Your task to perform on an android device: turn vacation reply on in the gmail app Image 0: 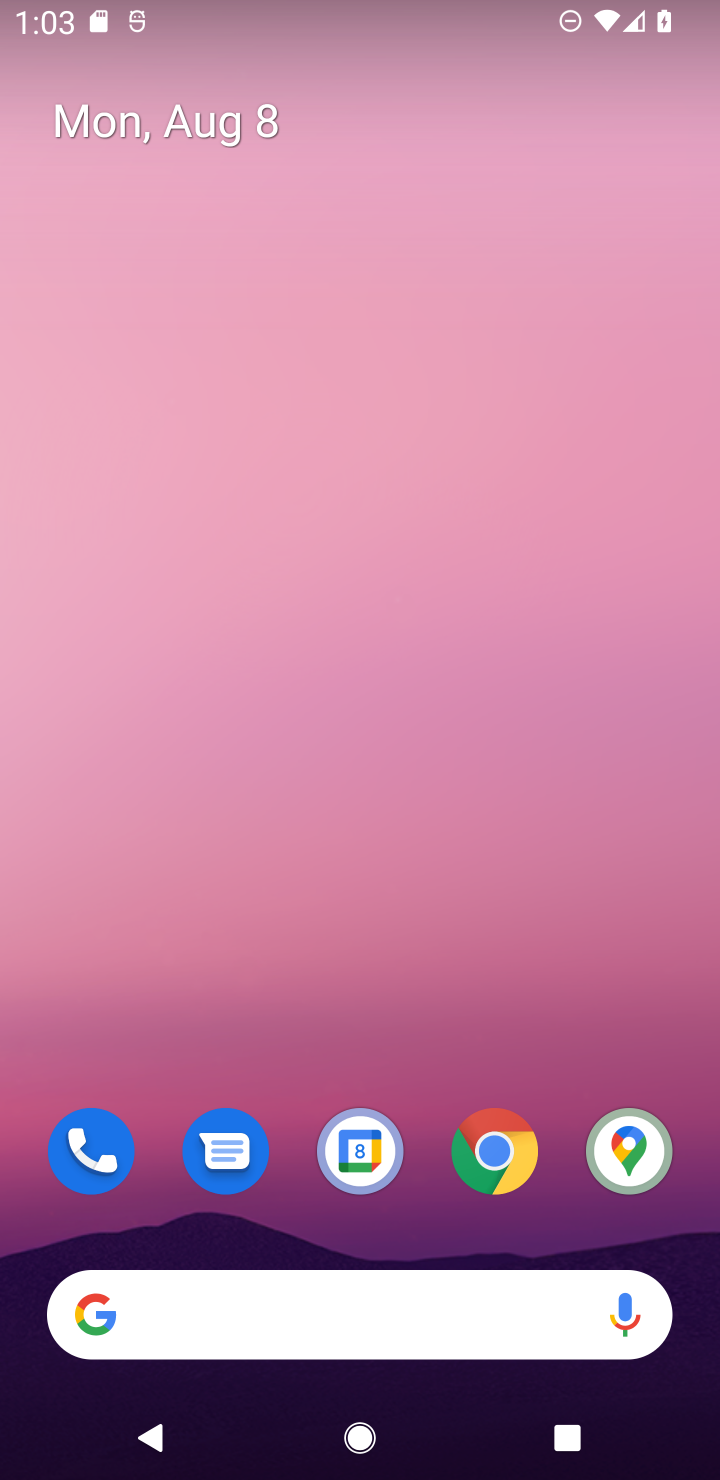
Step 0: drag from (394, 316) to (392, 164)
Your task to perform on an android device: turn vacation reply on in the gmail app Image 1: 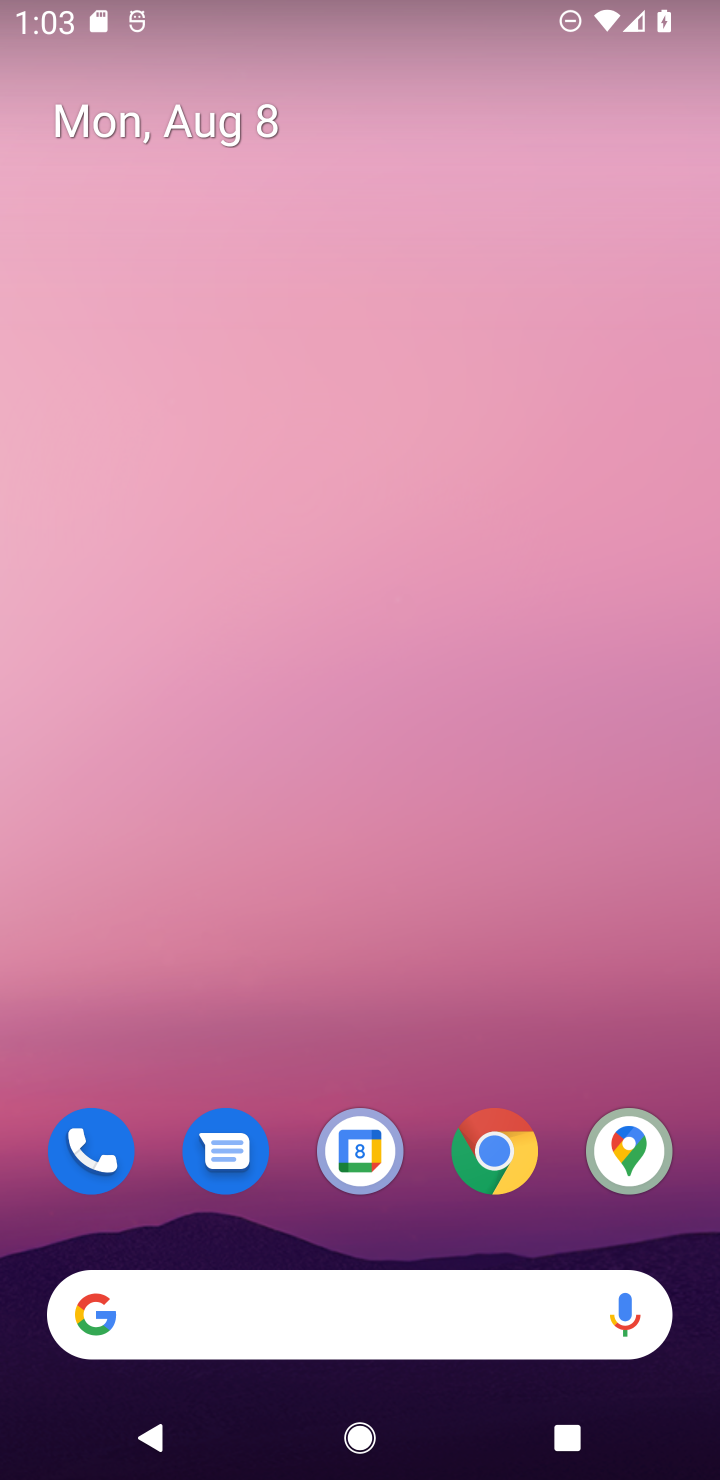
Step 1: drag from (214, 1235) to (189, 358)
Your task to perform on an android device: turn vacation reply on in the gmail app Image 2: 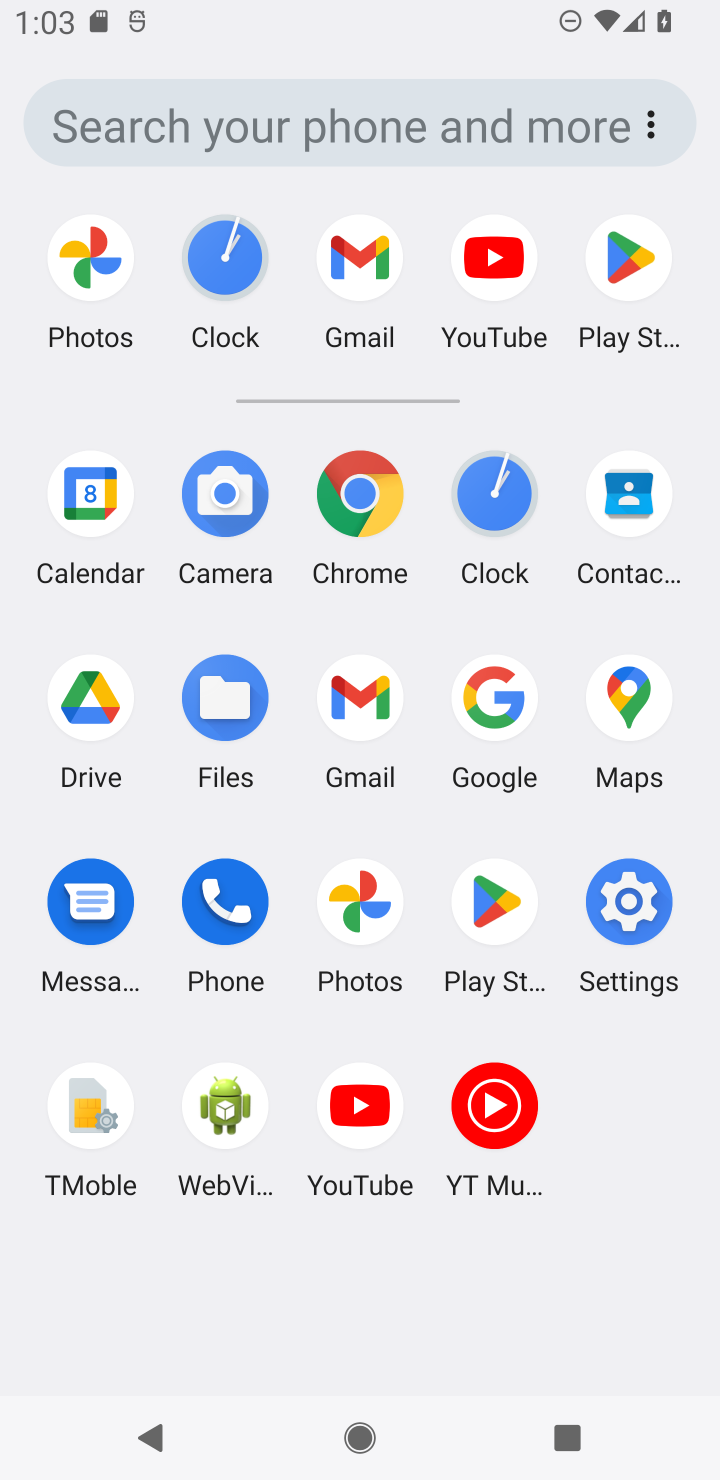
Step 2: click (355, 732)
Your task to perform on an android device: turn vacation reply on in the gmail app Image 3: 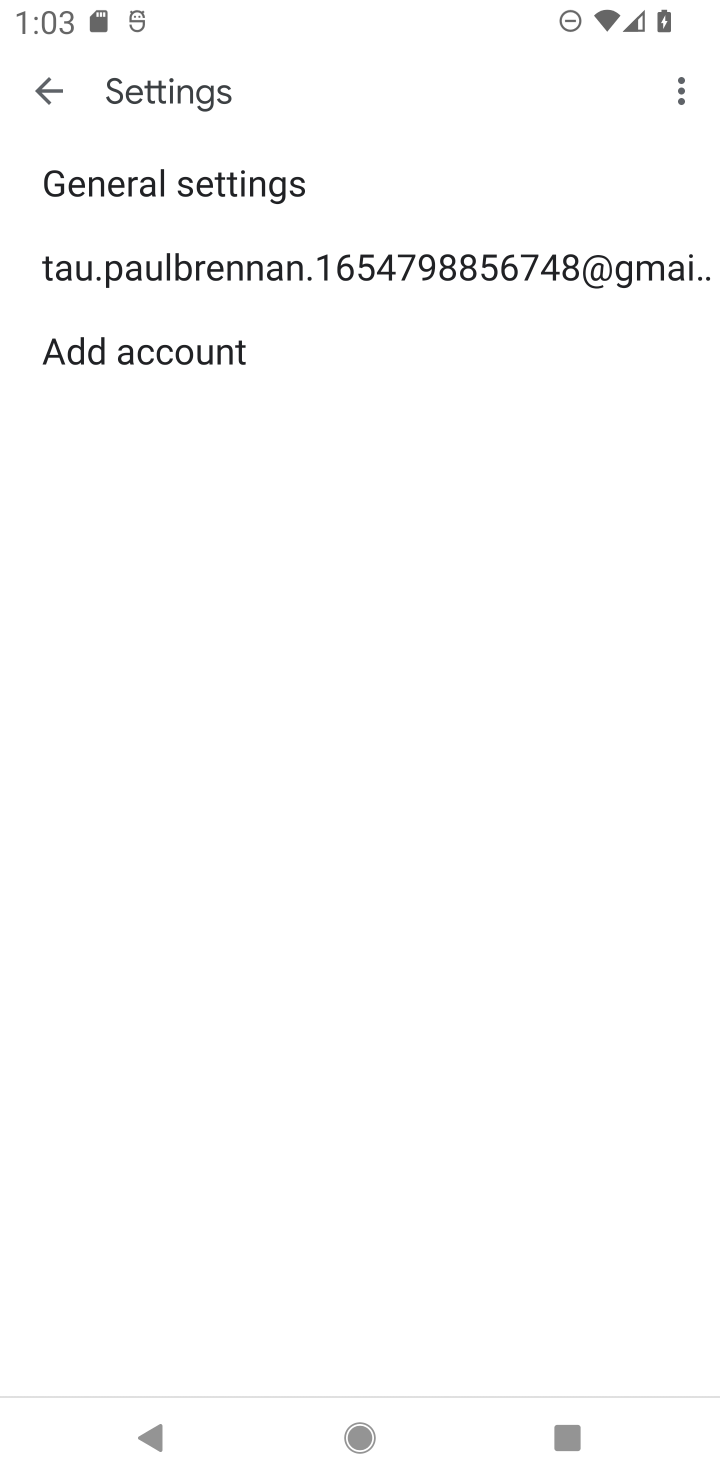
Step 3: click (169, 245)
Your task to perform on an android device: turn vacation reply on in the gmail app Image 4: 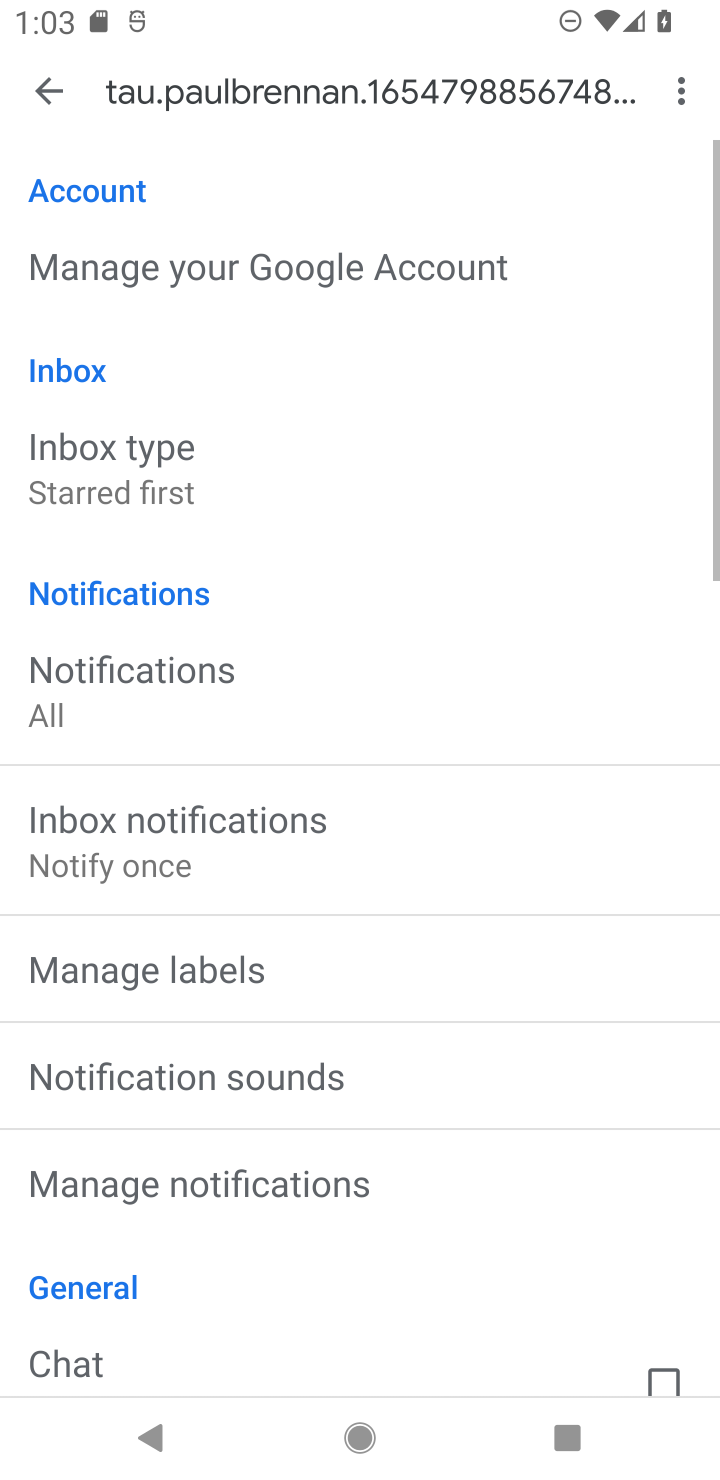
Step 4: drag from (163, 1302) to (173, 406)
Your task to perform on an android device: turn vacation reply on in the gmail app Image 5: 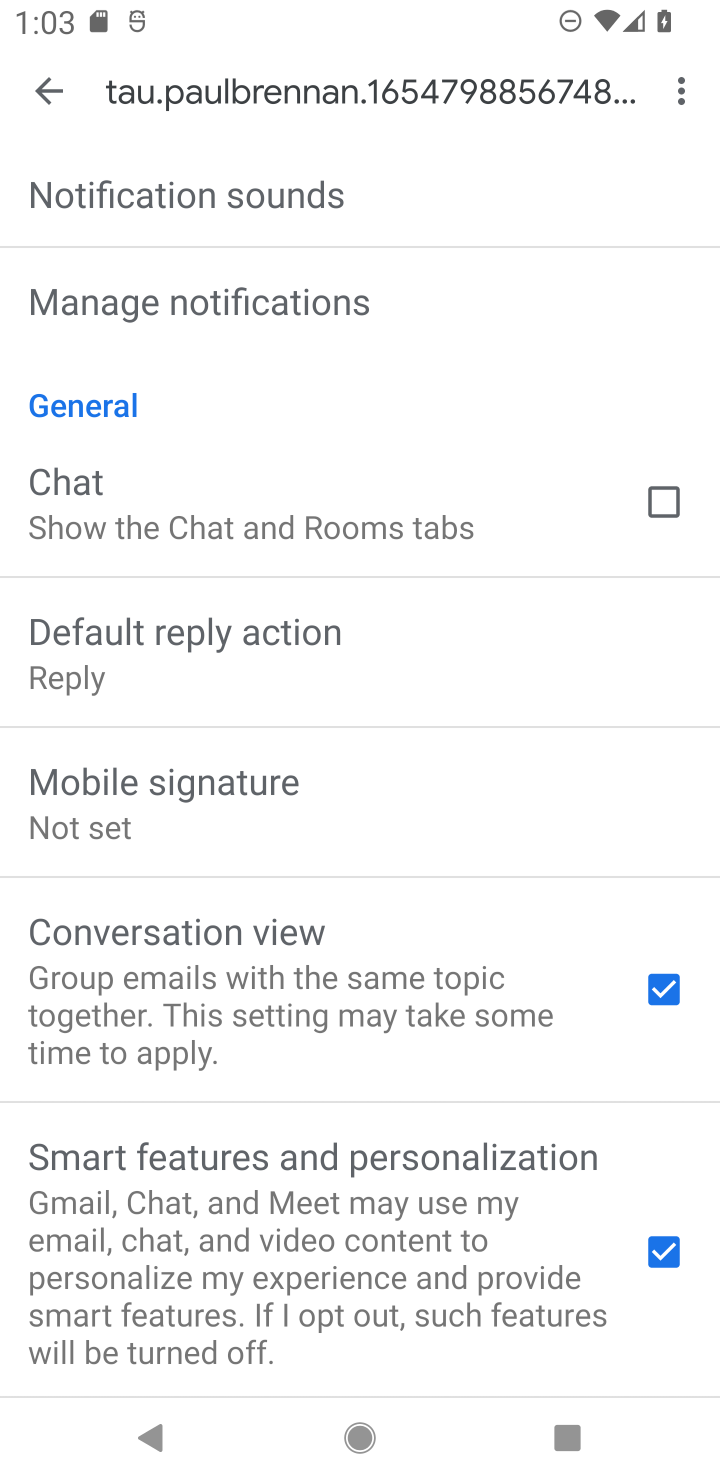
Step 5: drag from (81, 1293) to (142, 620)
Your task to perform on an android device: turn vacation reply on in the gmail app Image 6: 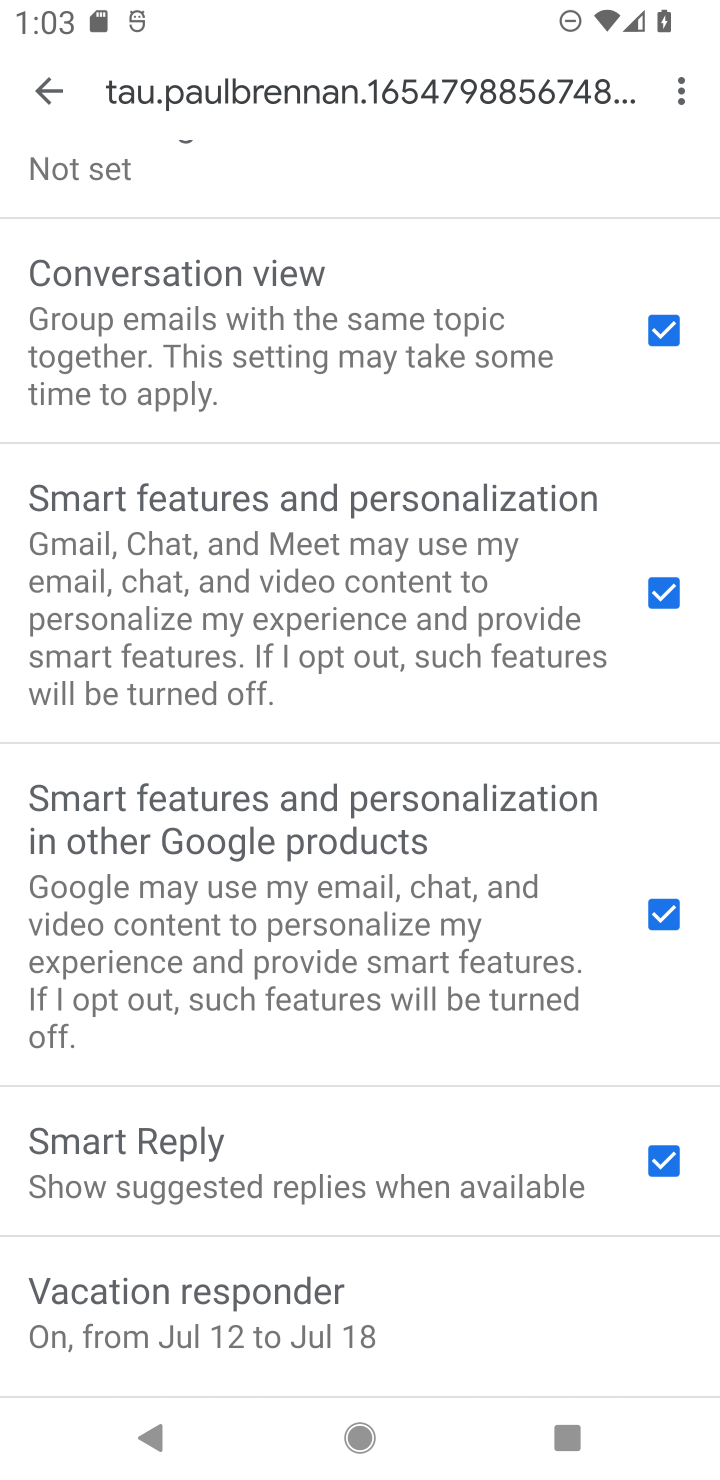
Step 6: drag from (278, 1200) to (278, 529)
Your task to perform on an android device: turn vacation reply on in the gmail app Image 7: 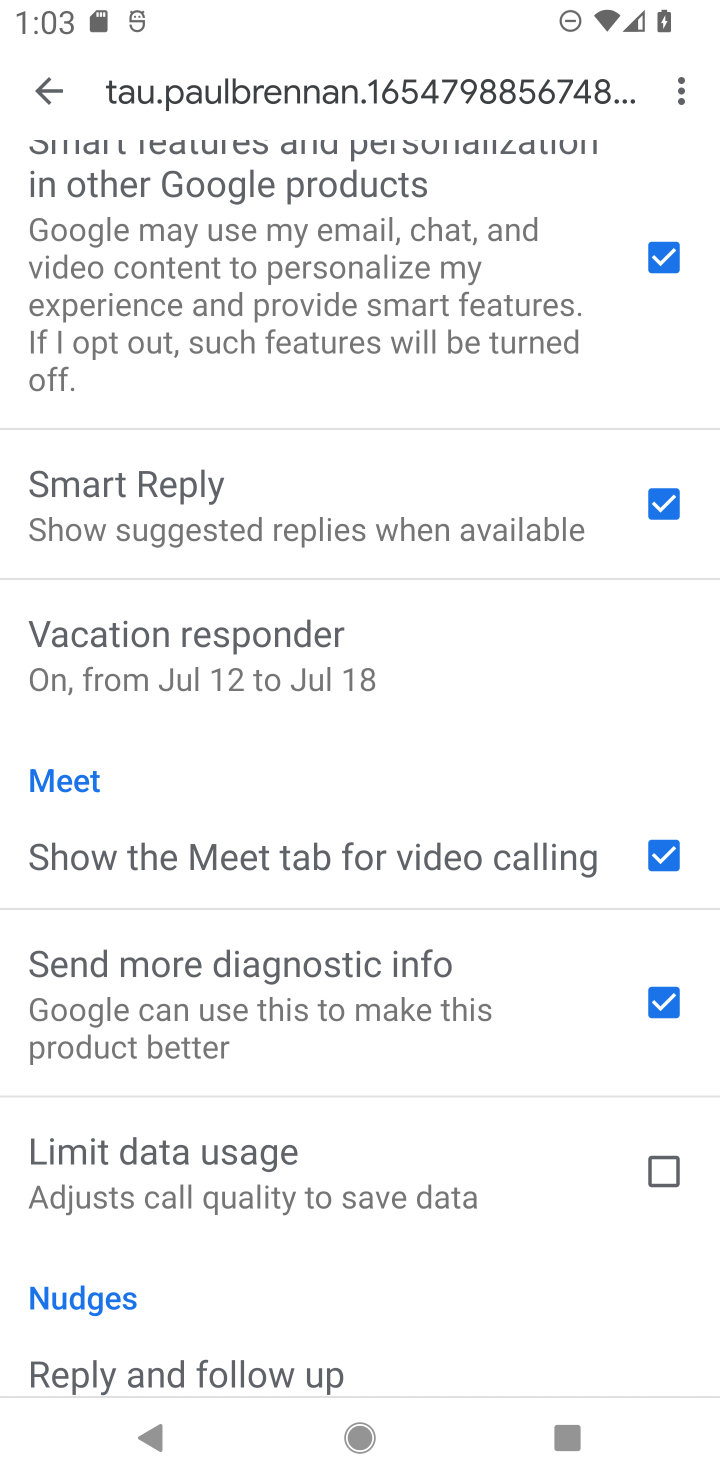
Step 7: click (179, 670)
Your task to perform on an android device: turn vacation reply on in the gmail app Image 8: 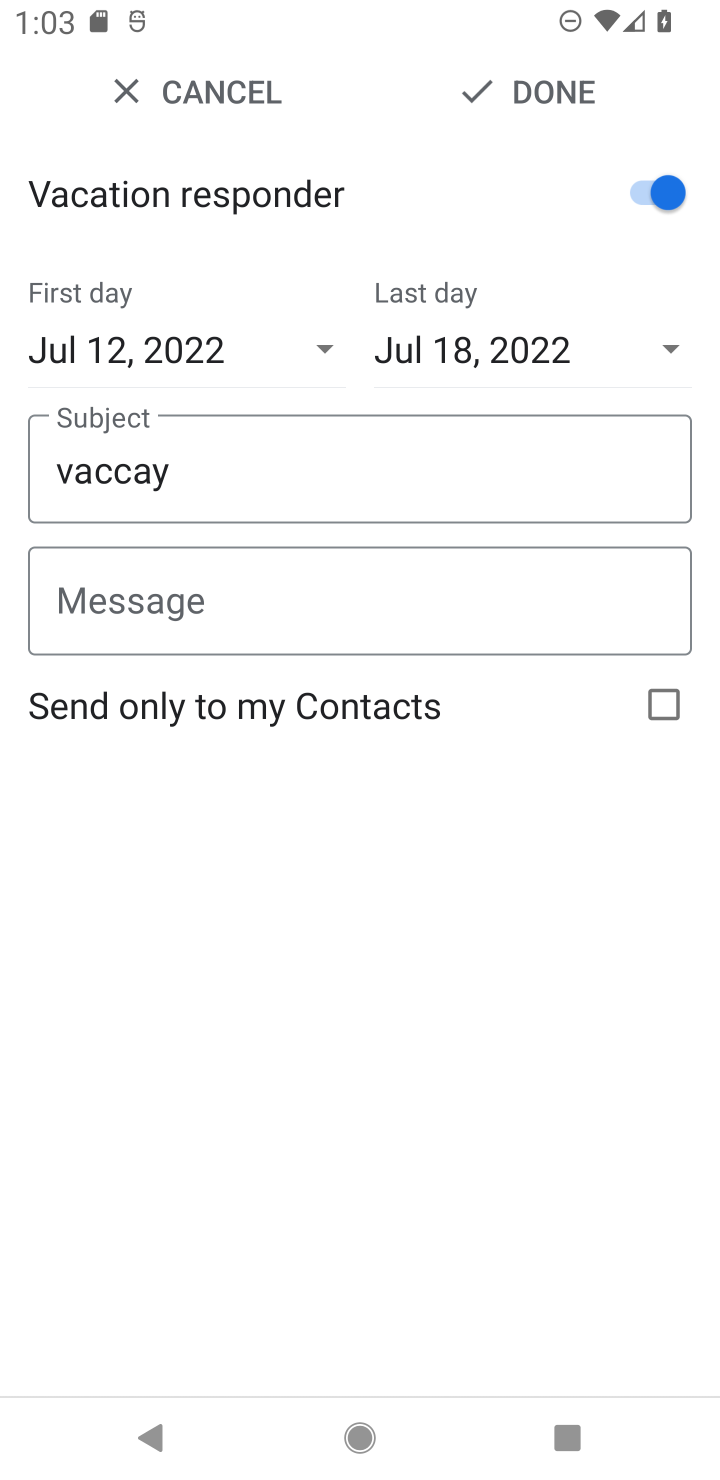
Step 8: click (548, 74)
Your task to perform on an android device: turn vacation reply on in the gmail app Image 9: 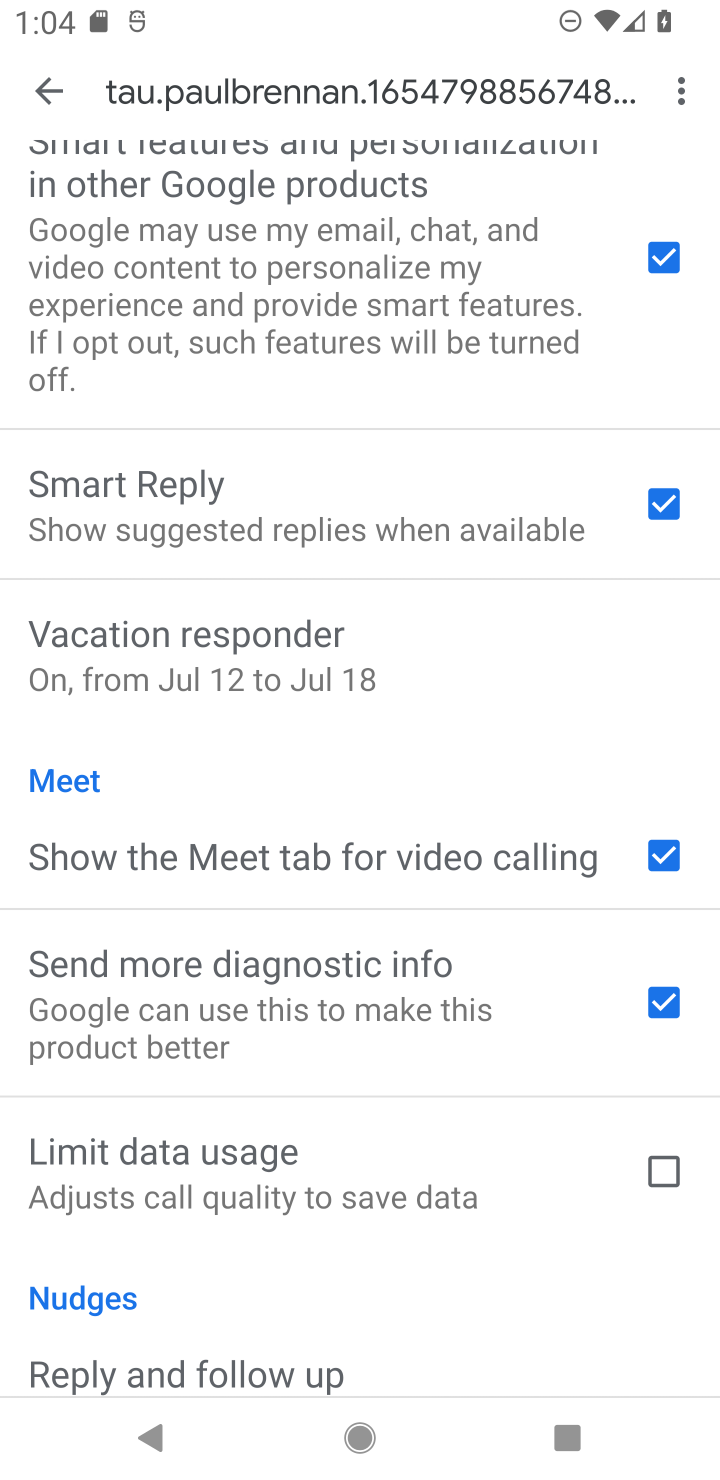
Step 9: task complete